Your task to perform on an android device: turn on wifi Image 0: 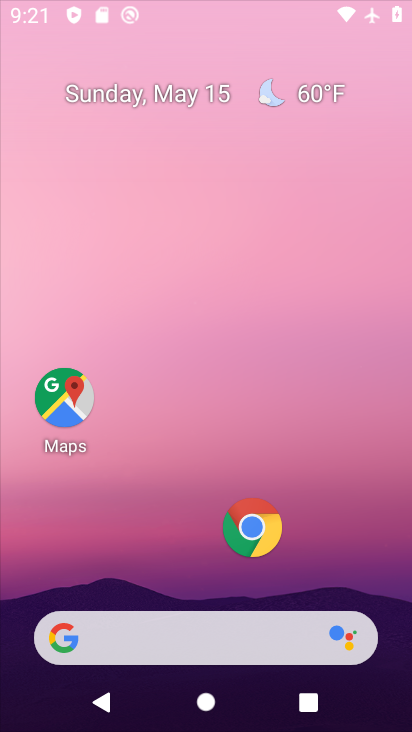
Step 0: drag from (197, 532) to (255, 46)
Your task to perform on an android device: turn on wifi Image 1: 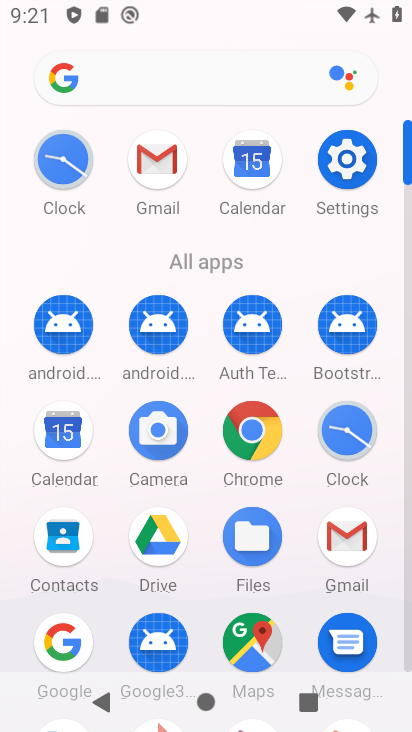
Step 1: drag from (206, 590) to (247, 58)
Your task to perform on an android device: turn on wifi Image 2: 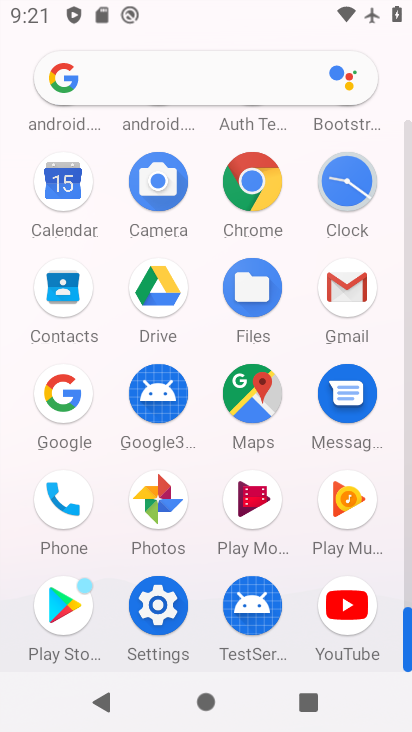
Step 2: click (158, 600)
Your task to perform on an android device: turn on wifi Image 3: 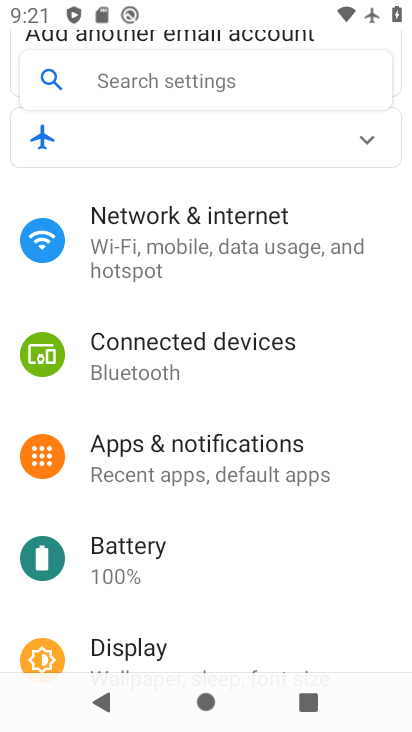
Step 3: click (212, 244)
Your task to perform on an android device: turn on wifi Image 4: 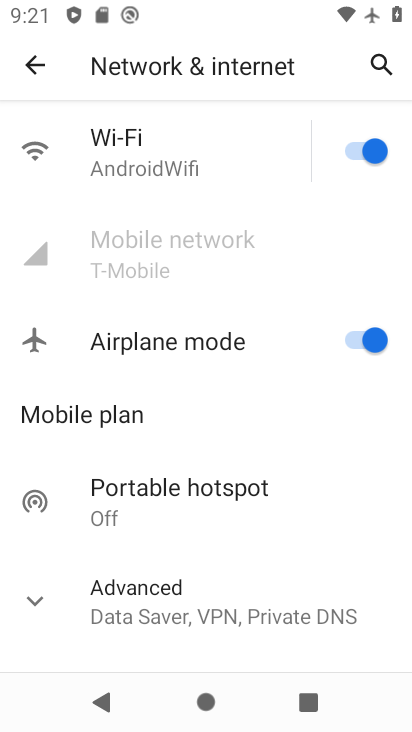
Step 4: click (249, 151)
Your task to perform on an android device: turn on wifi Image 5: 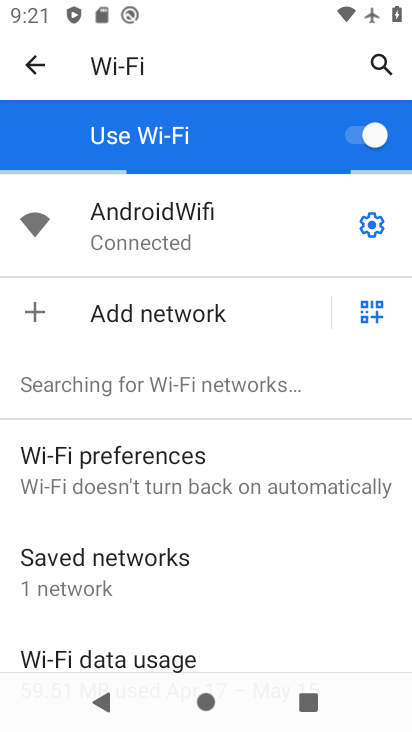
Step 5: task complete